Your task to perform on an android device: check data usage Image 0: 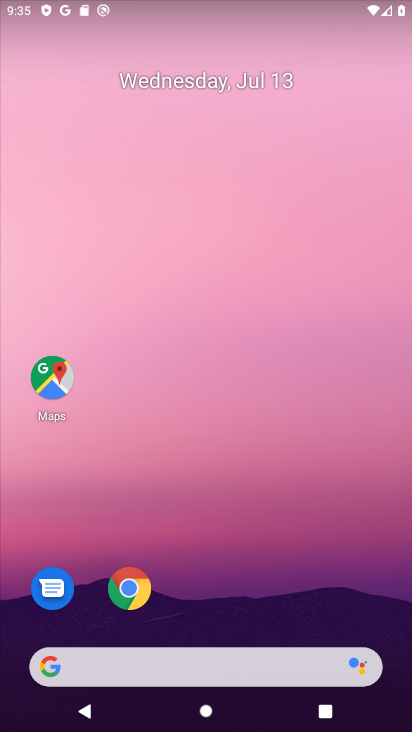
Step 0: drag from (198, 614) to (228, 81)
Your task to perform on an android device: check data usage Image 1: 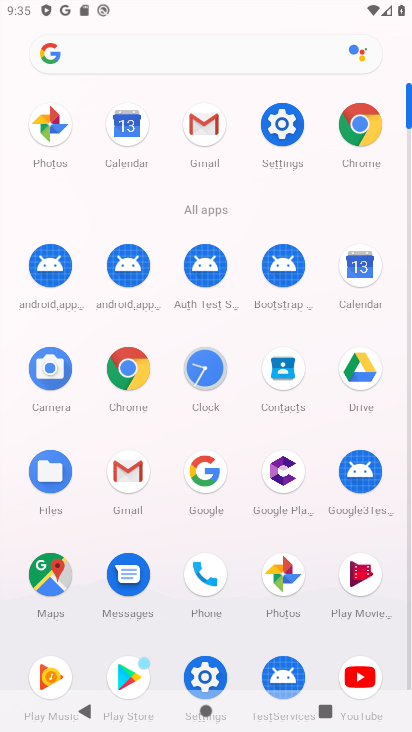
Step 1: click (284, 123)
Your task to perform on an android device: check data usage Image 2: 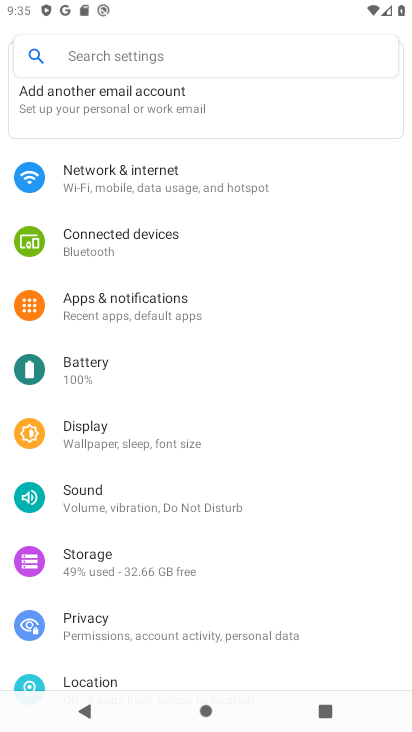
Step 2: click (119, 183)
Your task to perform on an android device: check data usage Image 3: 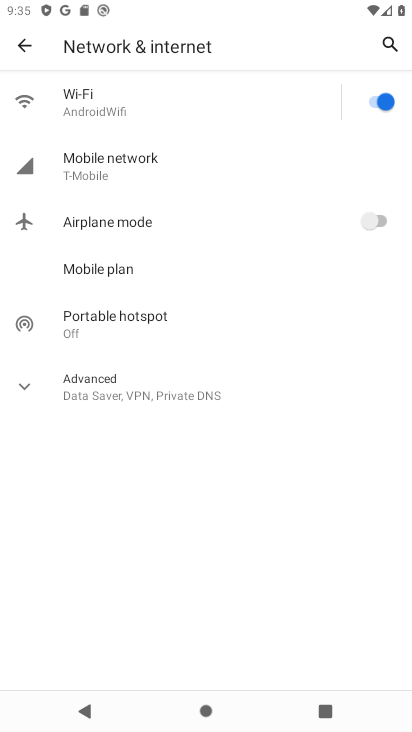
Step 3: click (128, 165)
Your task to perform on an android device: check data usage Image 4: 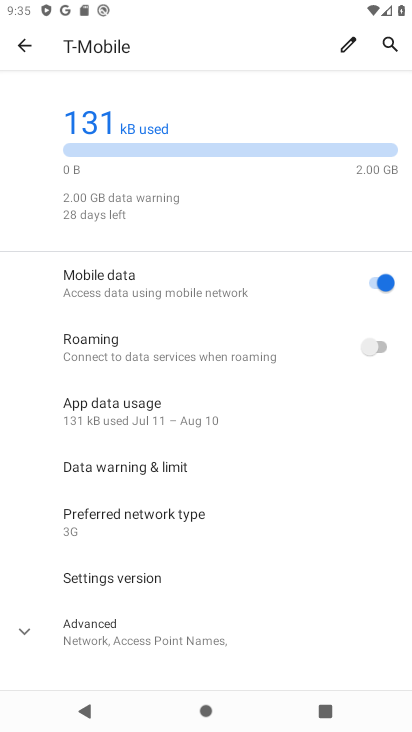
Step 4: task complete